Your task to perform on an android device: Go to privacy settings Image 0: 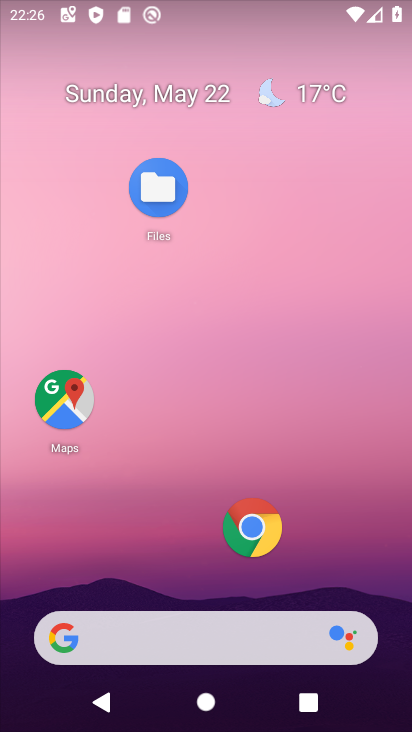
Step 0: drag from (169, 540) to (92, 57)
Your task to perform on an android device: Go to privacy settings Image 1: 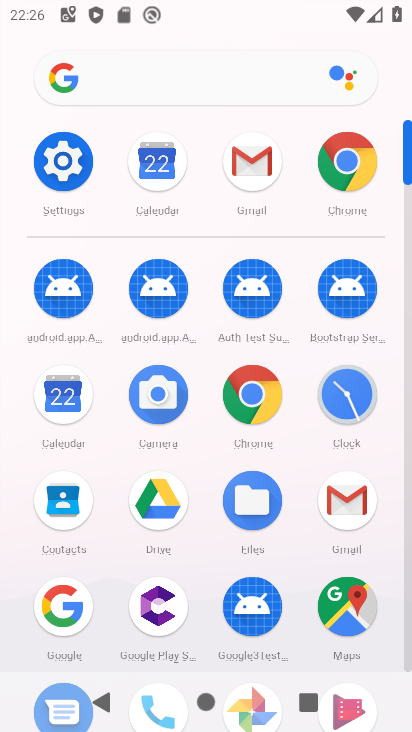
Step 1: click (66, 155)
Your task to perform on an android device: Go to privacy settings Image 2: 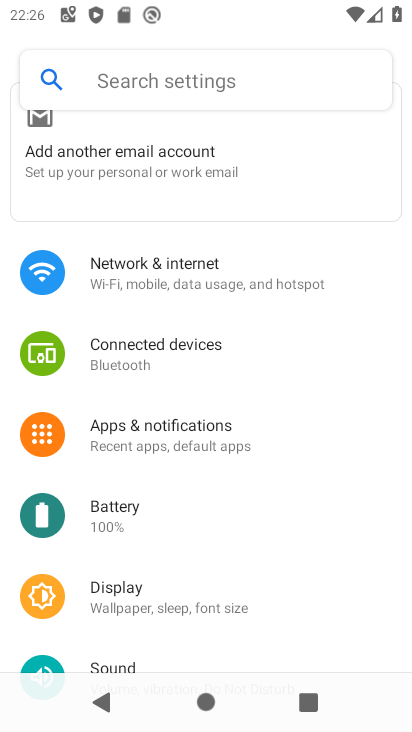
Step 2: drag from (289, 503) to (291, 99)
Your task to perform on an android device: Go to privacy settings Image 3: 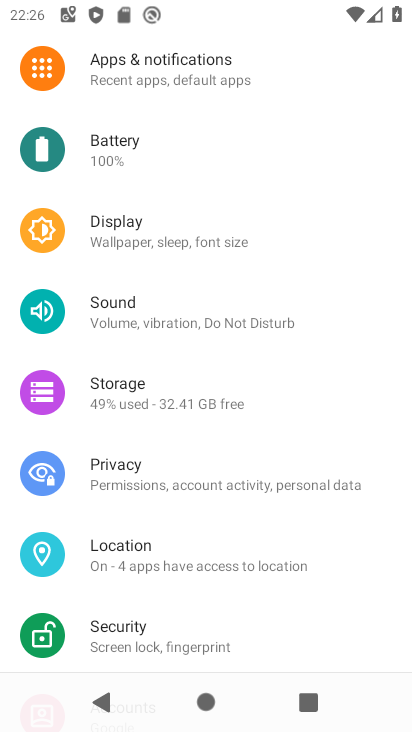
Step 3: click (117, 465)
Your task to perform on an android device: Go to privacy settings Image 4: 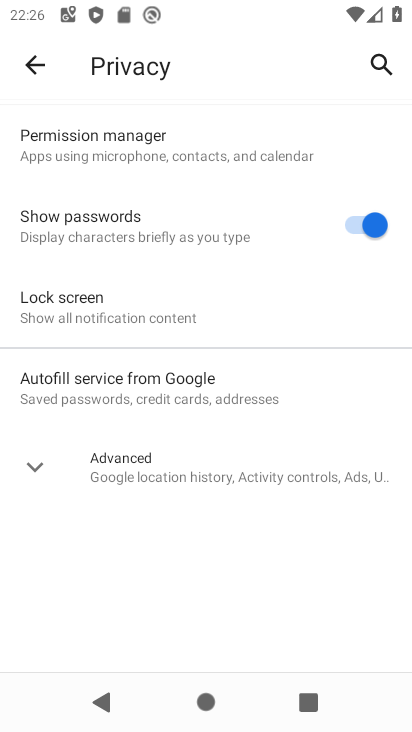
Step 4: task complete